Your task to perform on an android device: create a new album in the google photos Image 0: 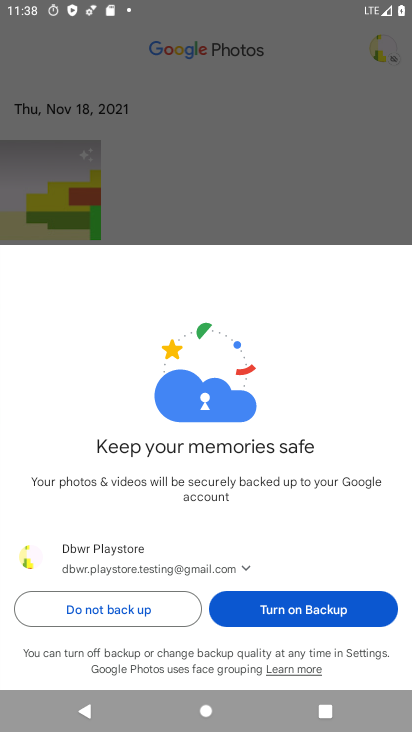
Step 0: press home button
Your task to perform on an android device: create a new album in the google photos Image 1: 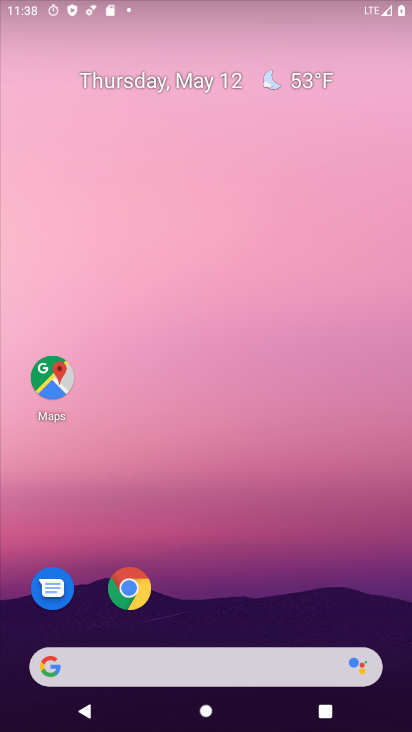
Step 1: drag from (334, 514) to (326, 139)
Your task to perform on an android device: create a new album in the google photos Image 2: 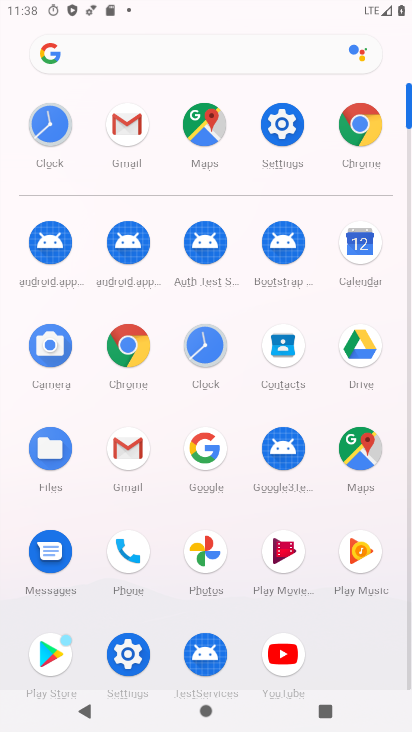
Step 2: click (217, 544)
Your task to perform on an android device: create a new album in the google photos Image 3: 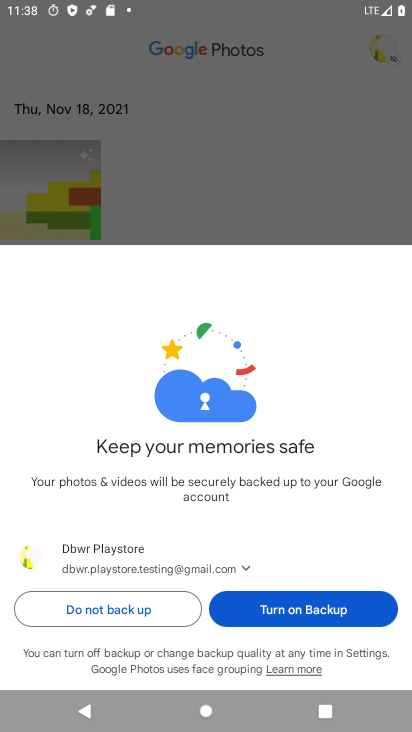
Step 3: click (334, 614)
Your task to perform on an android device: create a new album in the google photos Image 4: 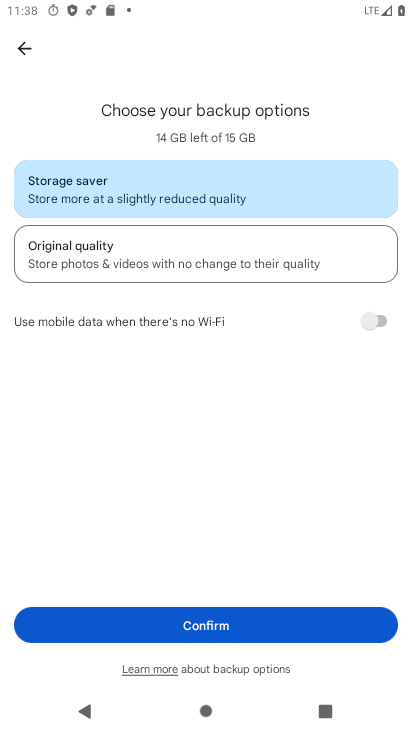
Step 4: click (213, 620)
Your task to perform on an android device: create a new album in the google photos Image 5: 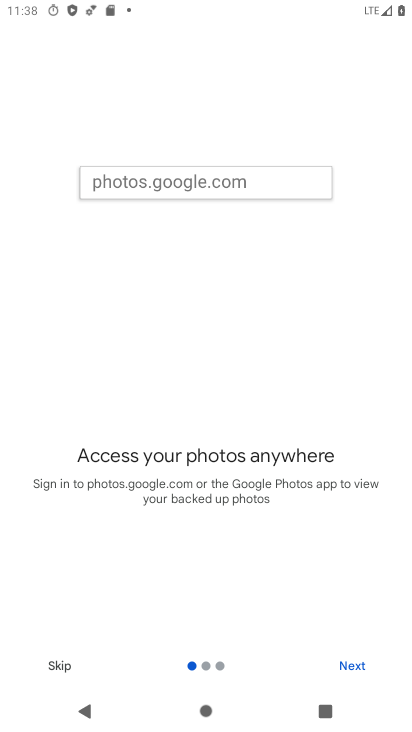
Step 5: click (58, 663)
Your task to perform on an android device: create a new album in the google photos Image 6: 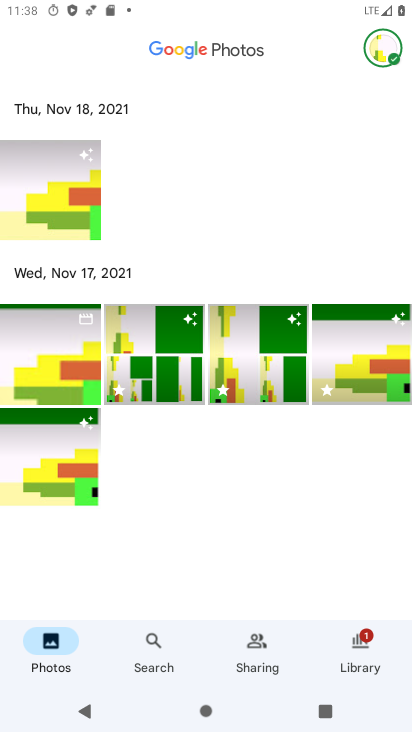
Step 6: click (364, 634)
Your task to perform on an android device: create a new album in the google photos Image 7: 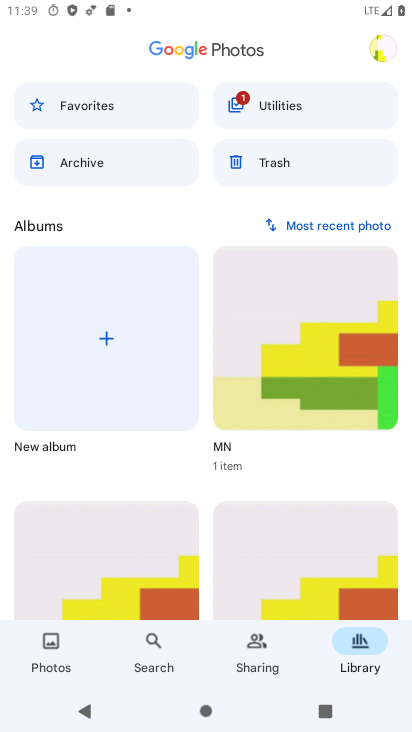
Step 7: click (127, 348)
Your task to perform on an android device: create a new album in the google photos Image 8: 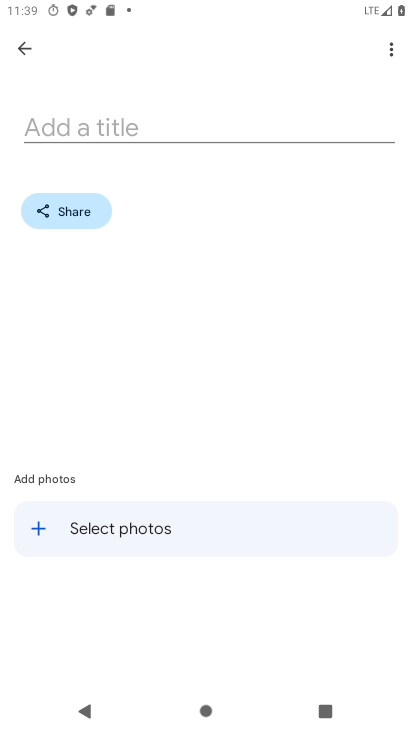
Step 8: click (151, 127)
Your task to perform on an android device: create a new album in the google photos Image 9: 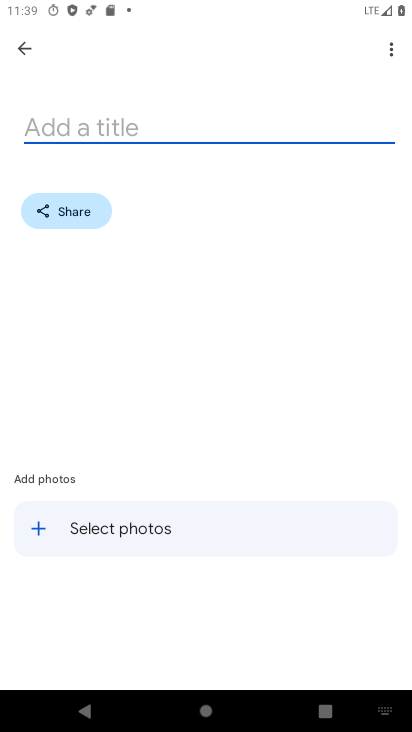
Step 9: type "unjh"
Your task to perform on an android device: create a new album in the google photos Image 10: 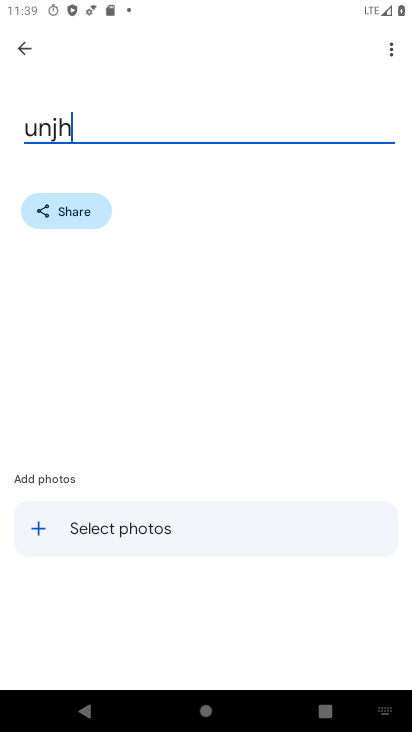
Step 10: press enter
Your task to perform on an android device: create a new album in the google photos Image 11: 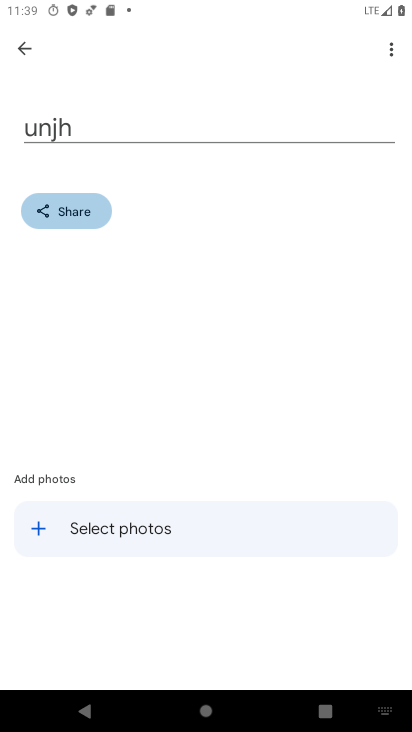
Step 11: press enter
Your task to perform on an android device: create a new album in the google photos Image 12: 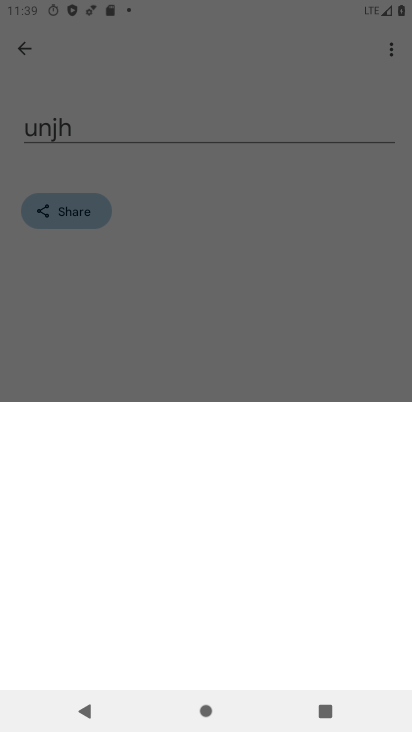
Step 12: click (104, 526)
Your task to perform on an android device: create a new album in the google photos Image 13: 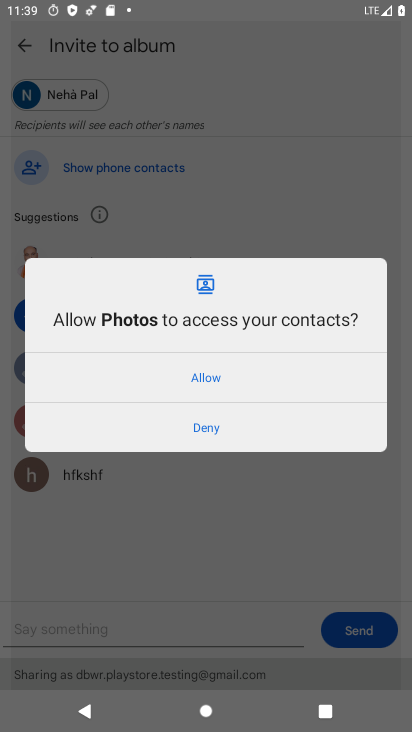
Step 13: click (225, 424)
Your task to perform on an android device: create a new album in the google photos Image 14: 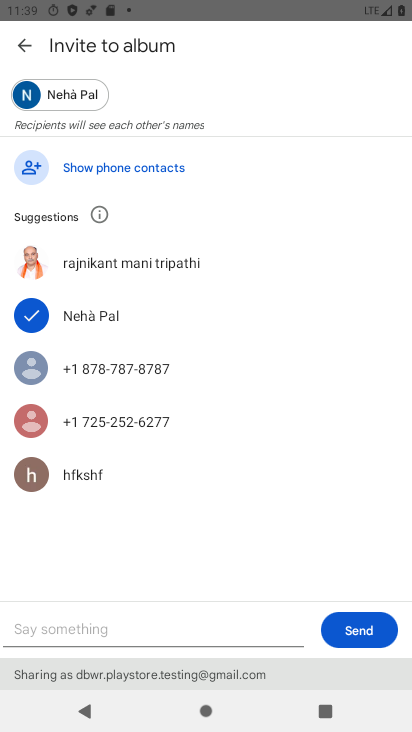
Step 14: click (22, 45)
Your task to perform on an android device: create a new album in the google photos Image 15: 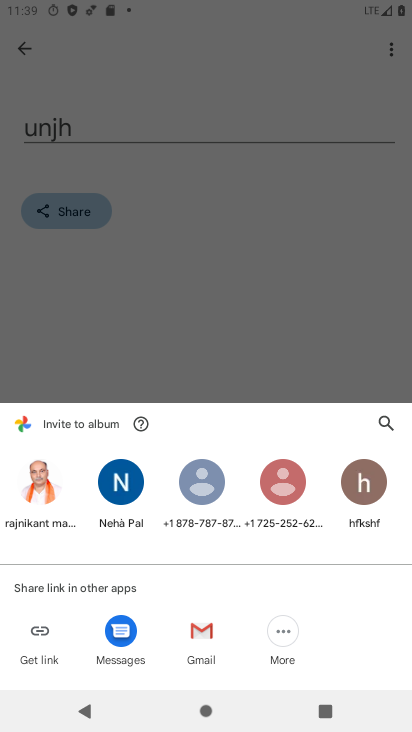
Step 15: click (180, 331)
Your task to perform on an android device: create a new album in the google photos Image 16: 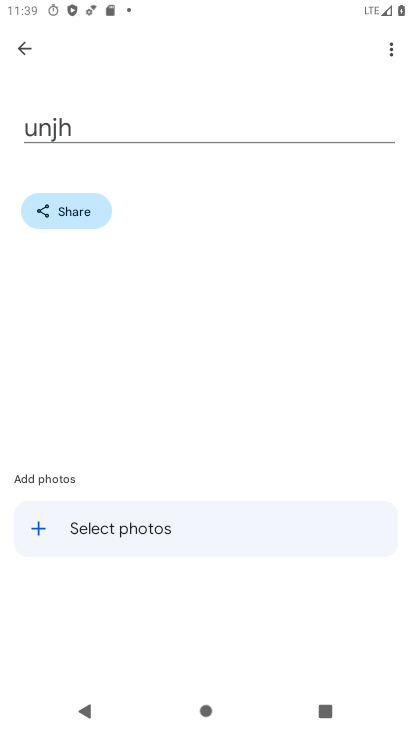
Step 16: click (84, 530)
Your task to perform on an android device: create a new album in the google photos Image 17: 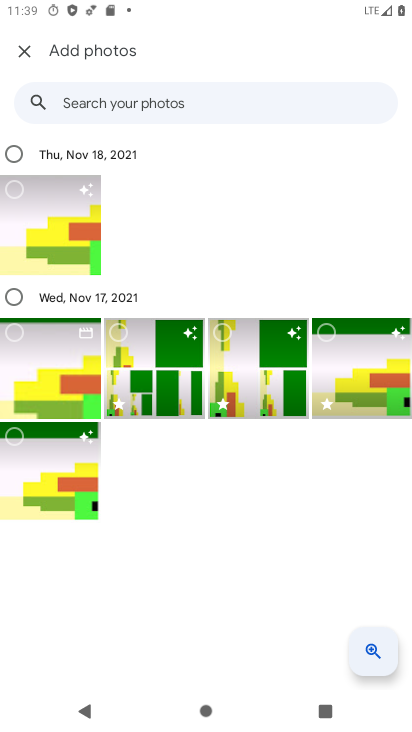
Step 17: click (33, 238)
Your task to perform on an android device: create a new album in the google photos Image 18: 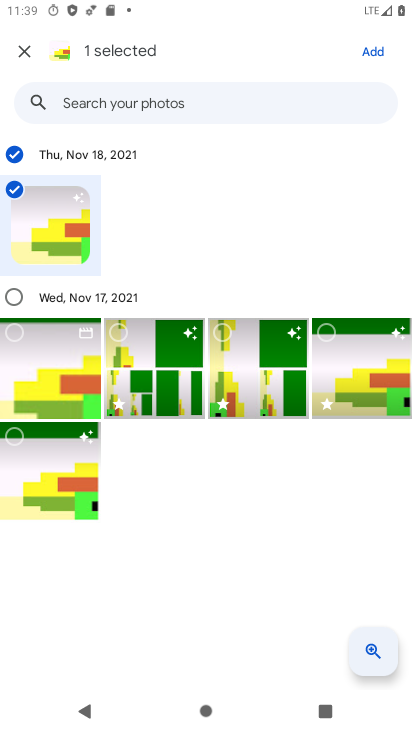
Step 18: click (365, 48)
Your task to perform on an android device: create a new album in the google photos Image 19: 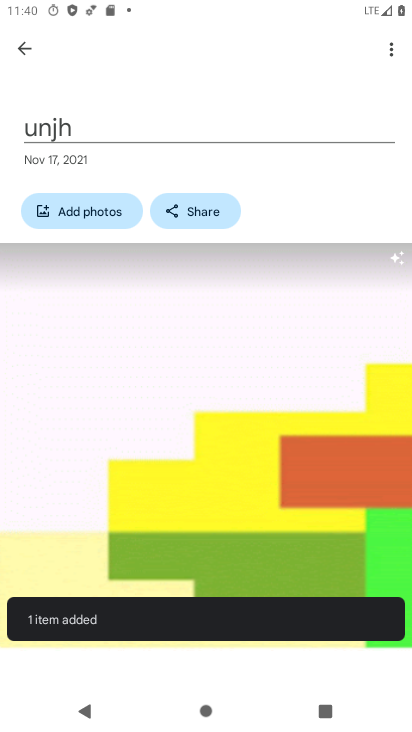
Step 19: press enter
Your task to perform on an android device: create a new album in the google photos Image 20: 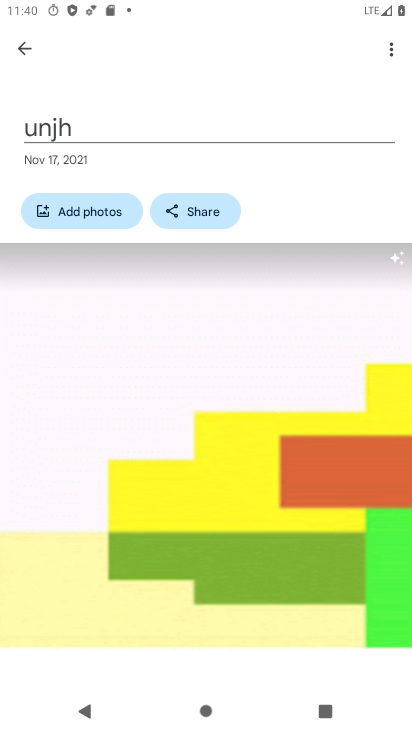
Step 20: task complete